Your task to perform on an android device: turn off improve location accuracy Image 0: 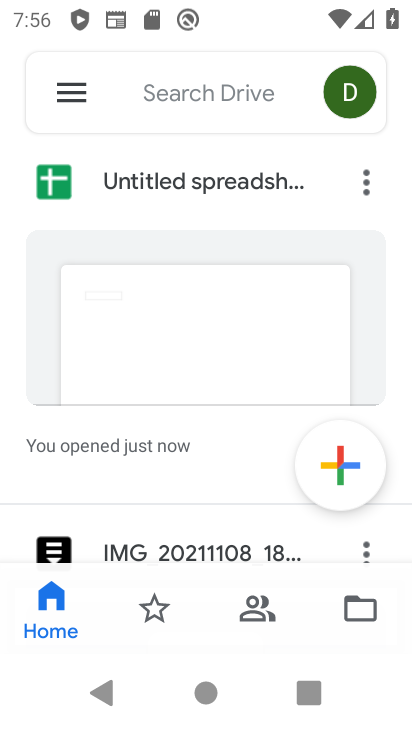
Step 0: press home button
Your task to perform on an android device: turn off improve location accuracy Image 1: 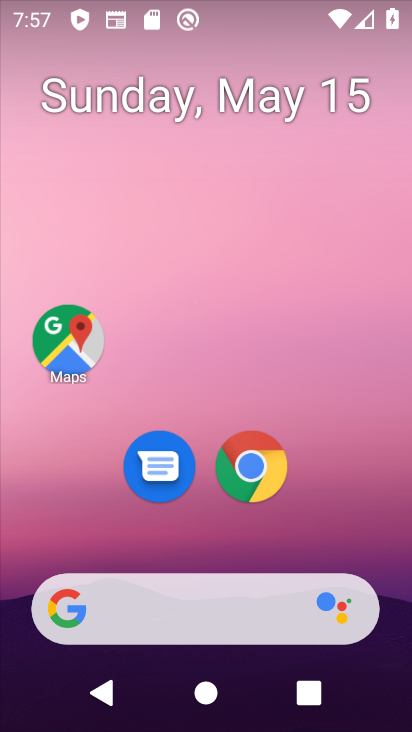
Step 1: drag from (202, 560) to (235, 9)
Your task to perform on an android device: turn off improve location accuracy Image 2: 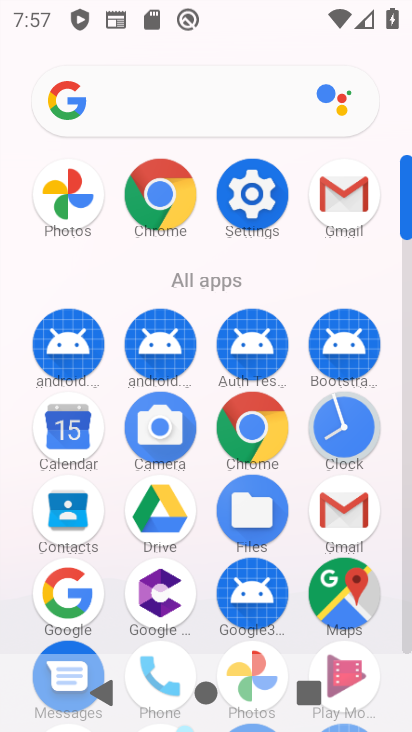
Step 2: click (264, 188)
Your task to perform on an android device: turn off improve location accuracy Image 3: 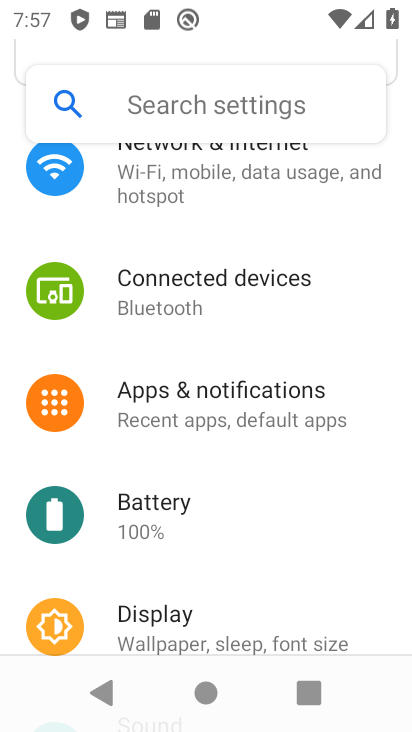
Step 3: drag from (242, 528) to (187, 142)
Your task to perform on an android device: turn off improve location accuracy Image 4: 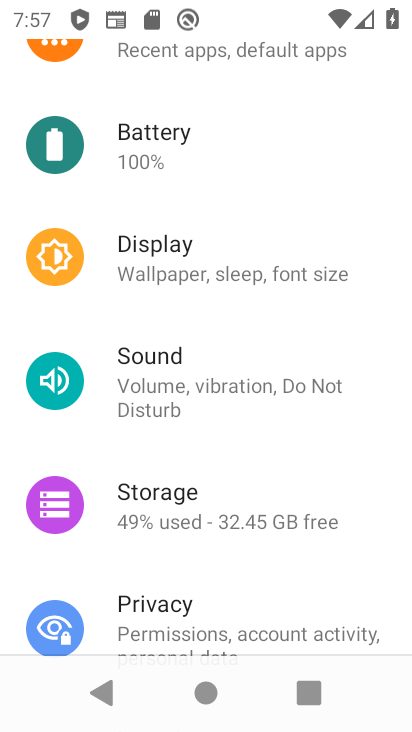
Step 4: drag from (209, 571) to (172, 85)
Your task to perform on an android device: turn off improve location accuracy Image 5: 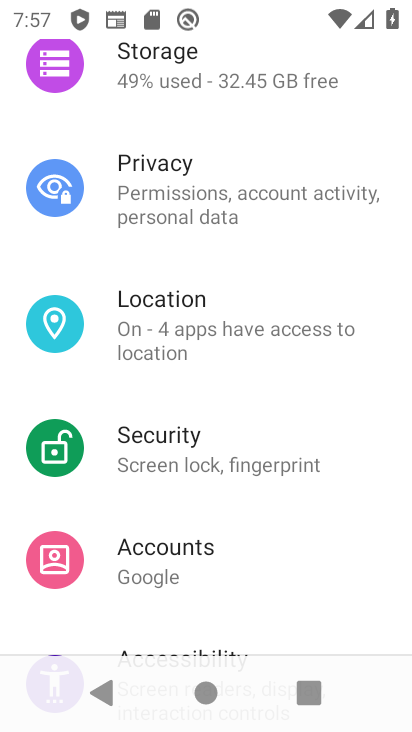
Step 5: click (186, 332)
Your task to perform on an android device: turn off improve location accuracy Image 6: 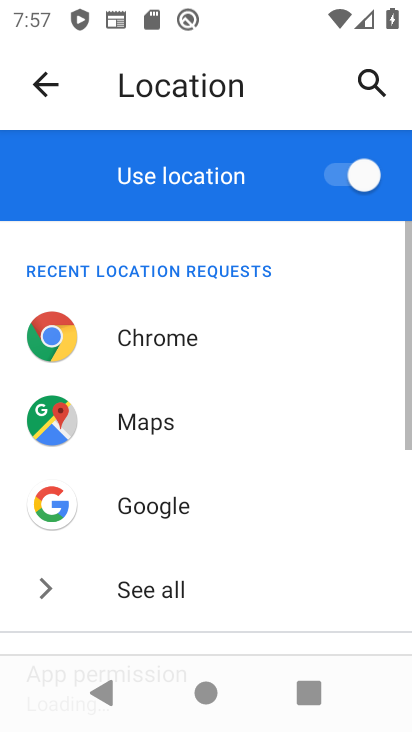
Step 6: drag from (219, 424) to (208, 0)
Your task to perform on an android device: turn off improve location accuracy Image 7: 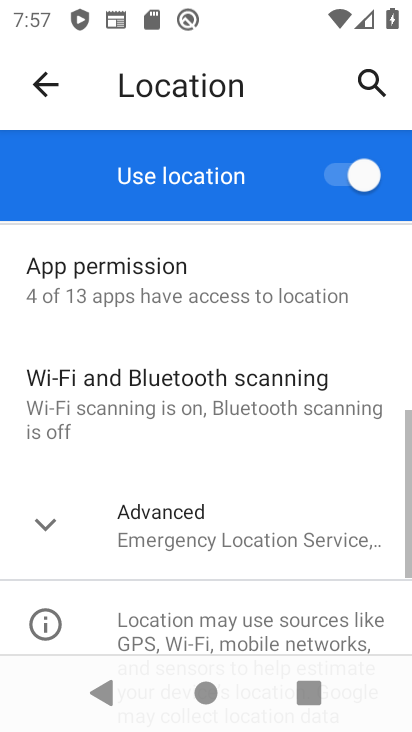
Step 7: click (210, 513)
Your task to perform on an android device: turn off improve location accuracy Image 8: 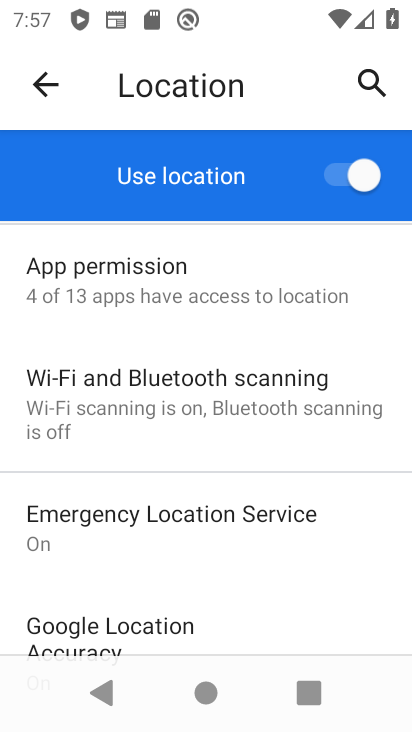
Step 8: drag from (241, 589) to (216, 422)
Your task to perform on an android device: turn off improve location accuracy Image 9: 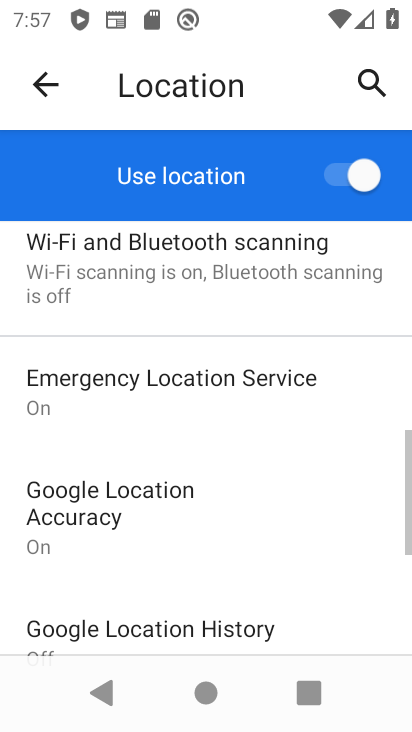
Step 9: click (150, 509)
Your task to perform on an android device: turn off improve location accuracy Image 10: 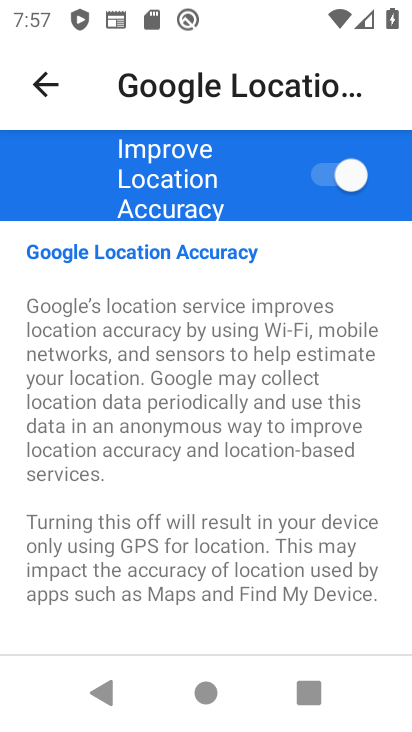
Step 10: click (329, 177)
Your task to perform on an android device: turn off improve location accuracy Image 11: 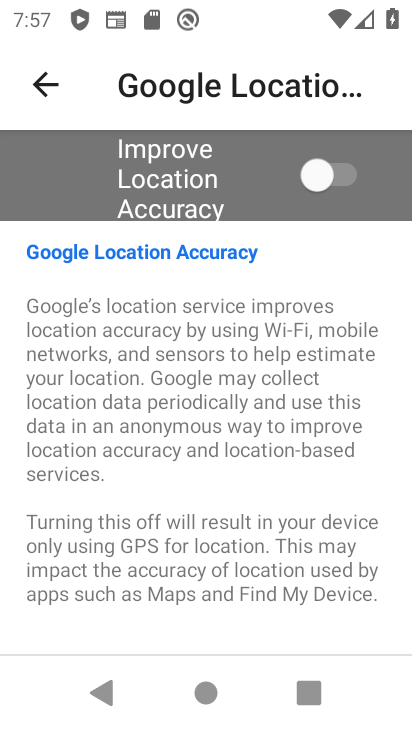
Step 11: task complete